Your task to perform on an android device: Search for seafood restaurants on Google Maps Image 0: 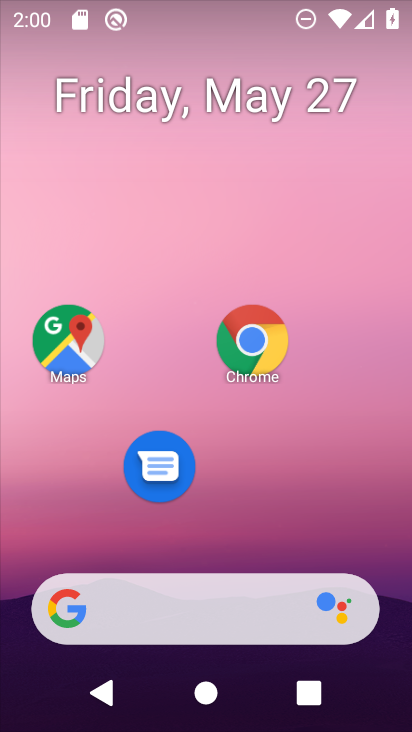
Step 0: click (83, 355)
Your task to perform on an android device: Search for seafood restaurants on Google Maps Image 1: 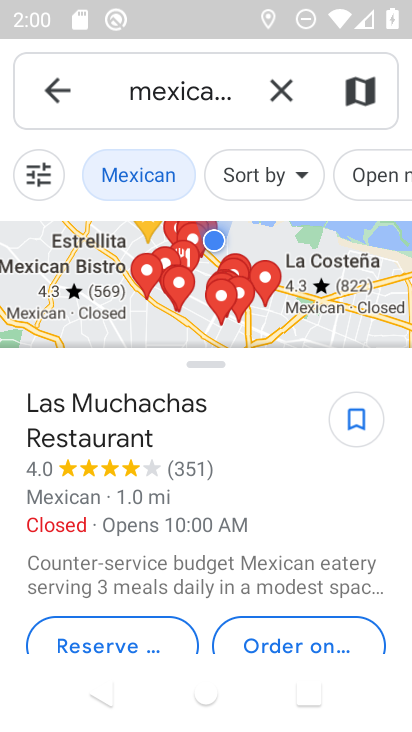
Step 1: drag from (83, 355) to (92, 292)
Your task to perform on an android device: Search for seafood restaurants on Google Maps Image 2: 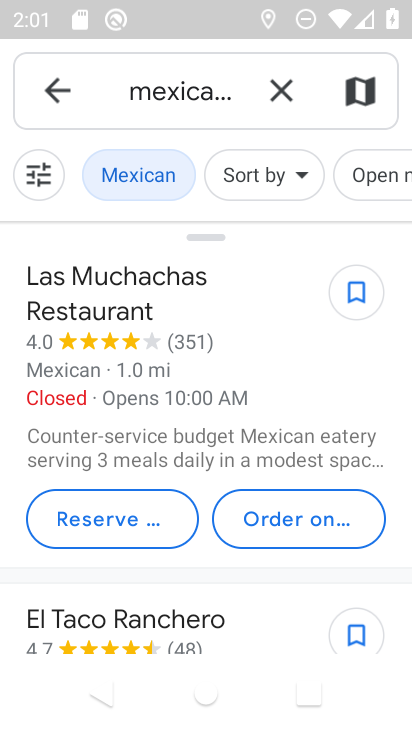
Step 2: click (225, 79)
Your task to perform on an android device: Search for seafood restaurants on Google Maps Image 3: 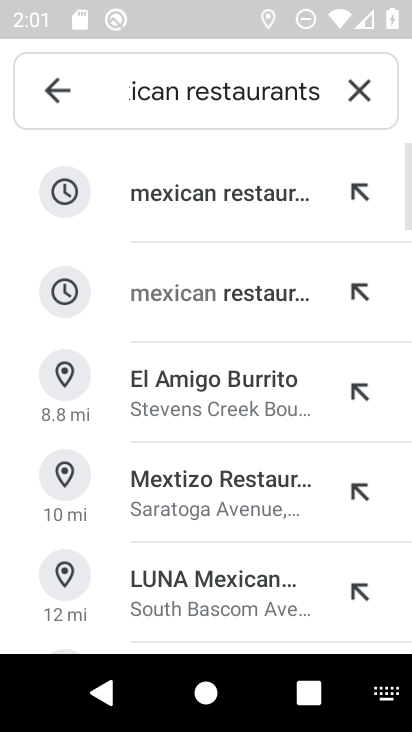
Step 3: click (365, 79)
Your task to perform on an android device: Search for seafood restaurants on Google Maps Image 4: 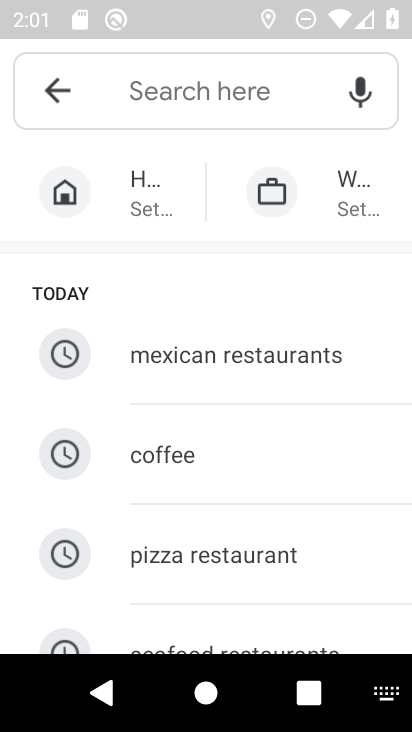
Step 4: click (160, 636)
Your task to perform on an android device: Search for seafood restaurants on Google Maps Image 5: 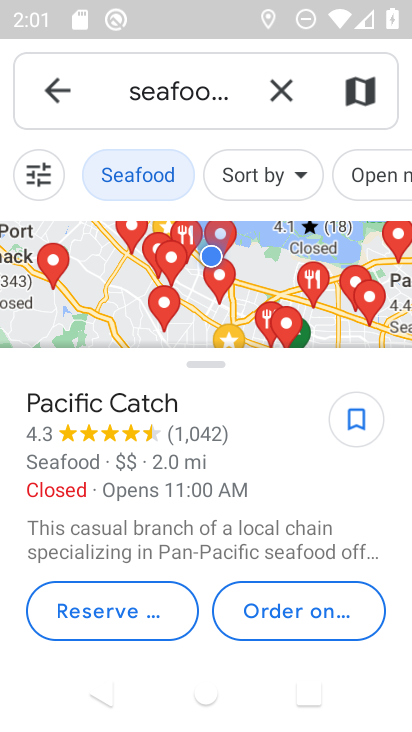
Step 5: task complete